Your task to perform on an android device: Search for good Italian restaurants on Maps Image 0: 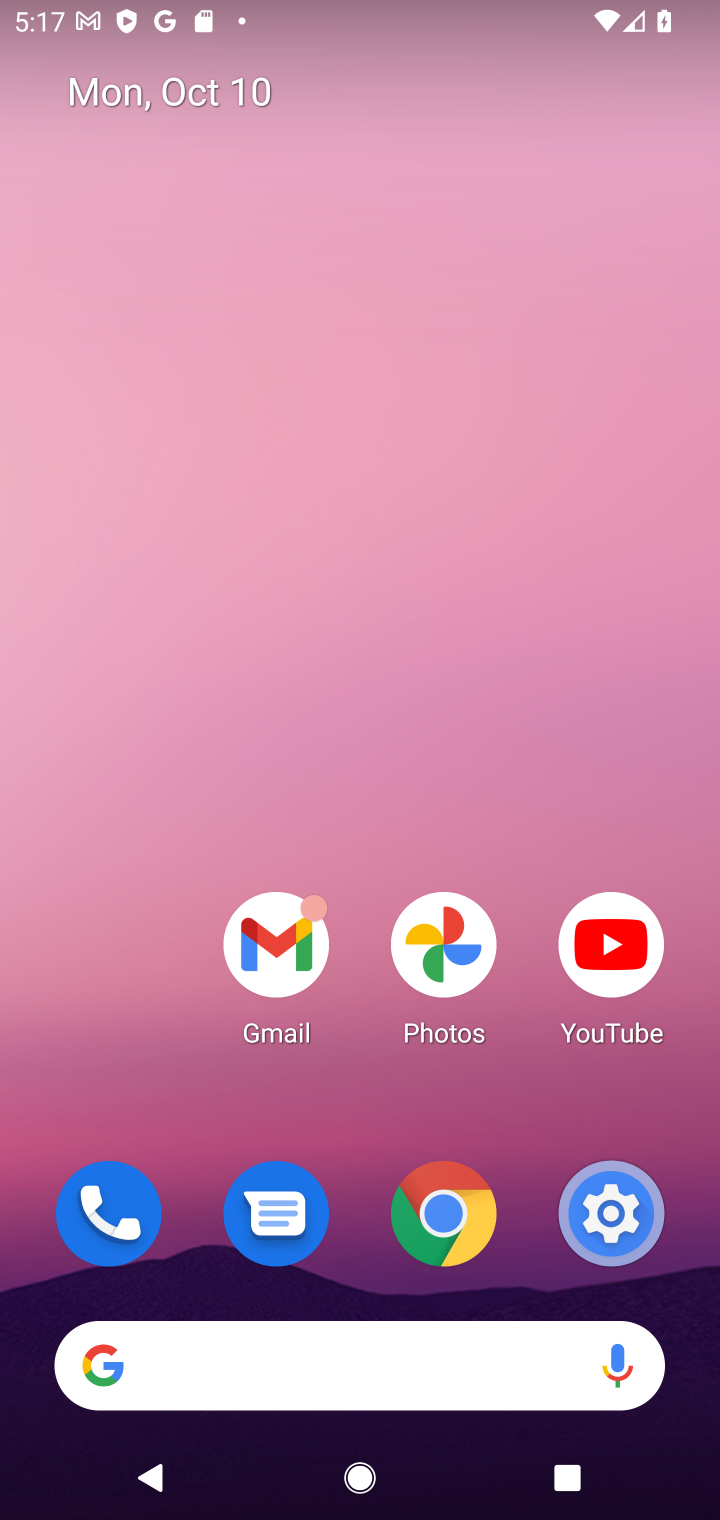
Step 0: drag from (365, 802) to (402, 287)
Your task to perform on an android device: Search for good Italian restaurants on Maps Image 1: 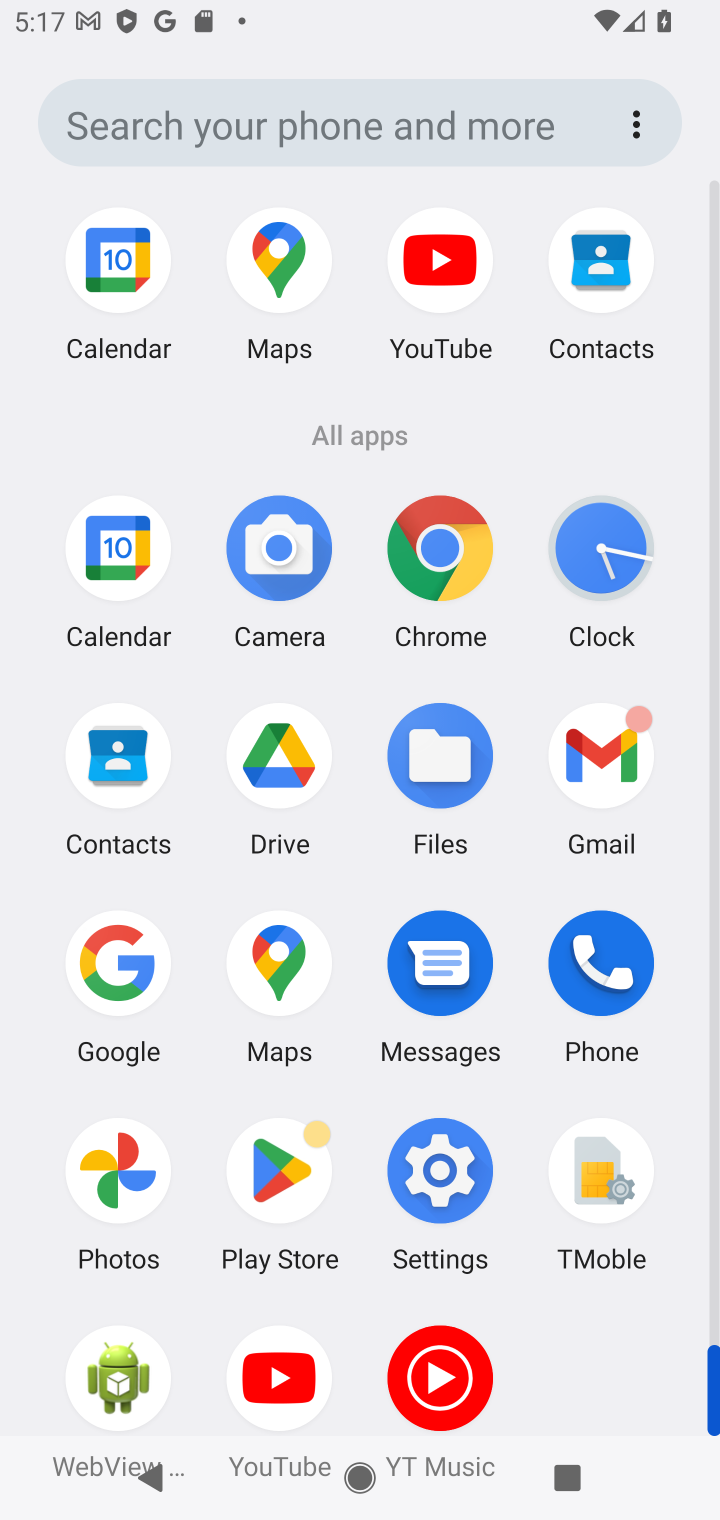
Step 1: click (306, 255)
Your task to perform on an android device: Search for good Italian restaurants on Maps Image 2: 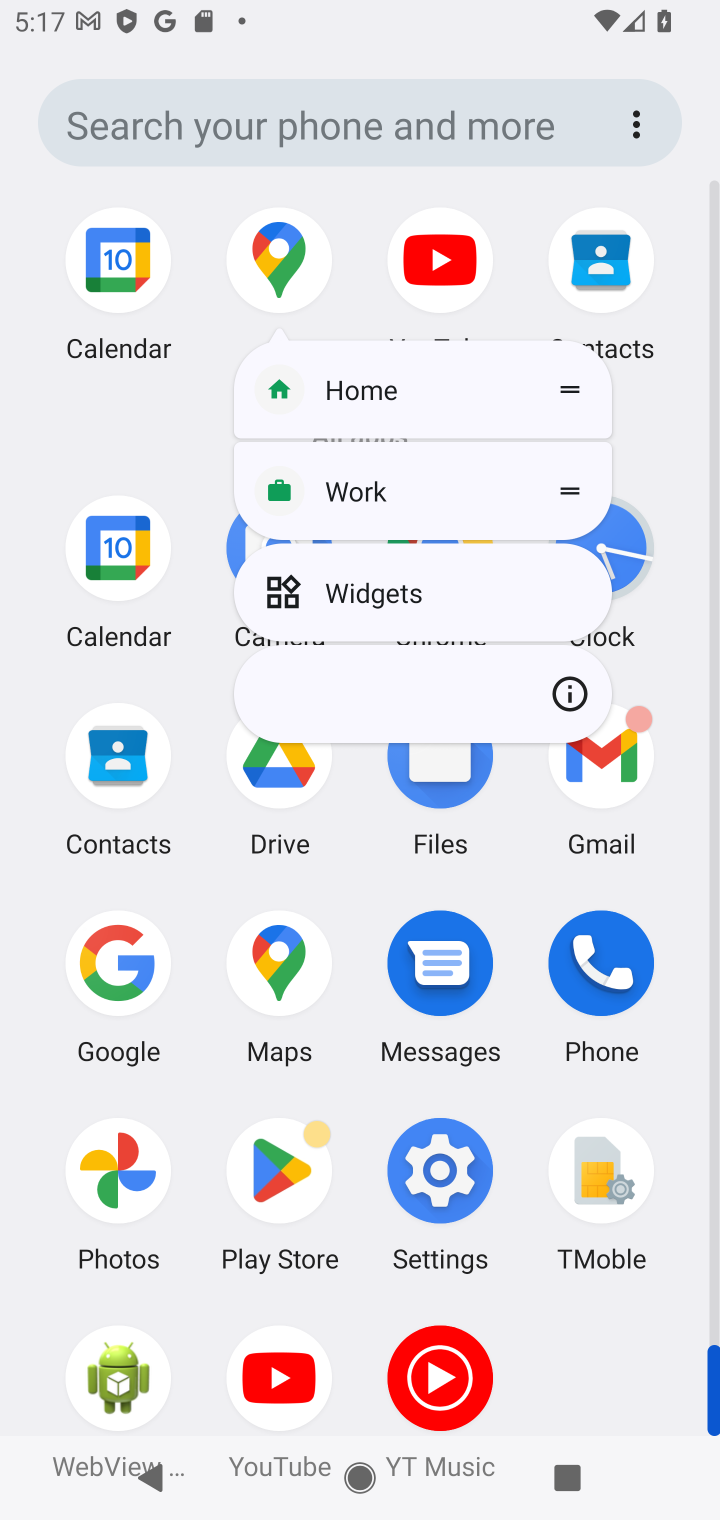
Step 2: click (264, 246)
Your task to perform on an android device: Search for good Italian restaurants on Maps Image 3: 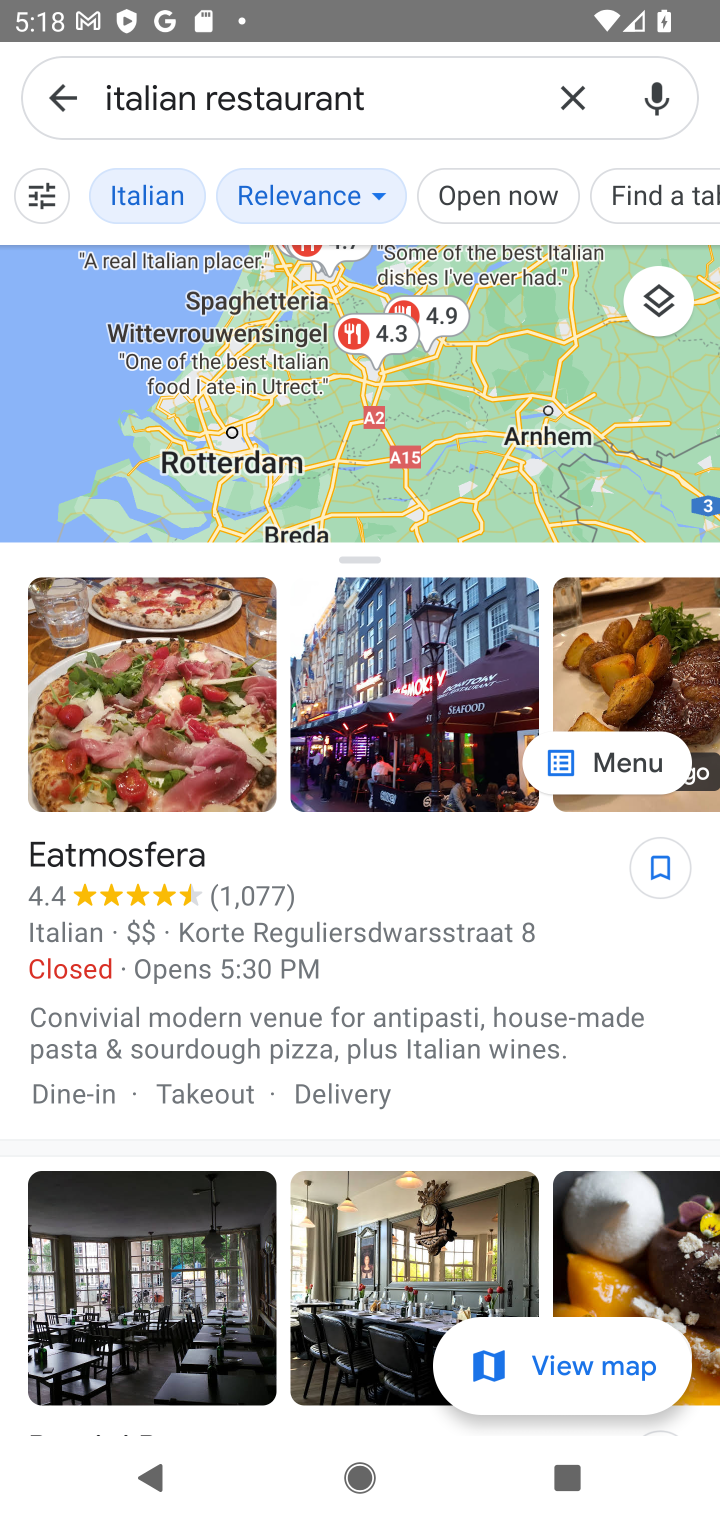
Step 3: click (566, 89)
Your task to perform on an android device: Search for good Italian restaurants on Maps Image 4: 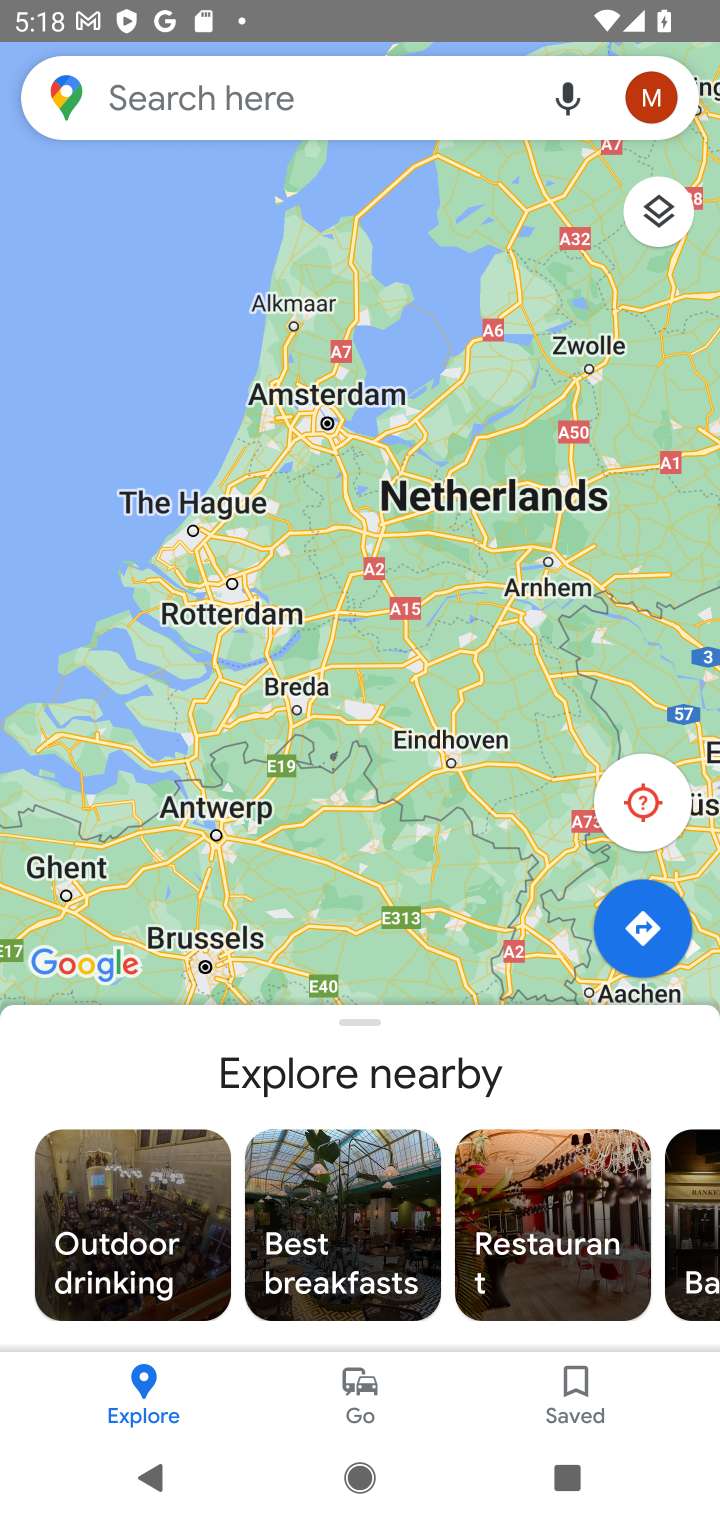
Step 4: type "Italian restaurants"
Your task to perform on an android device: Search for good Italian restaurants on Maps Image 5: 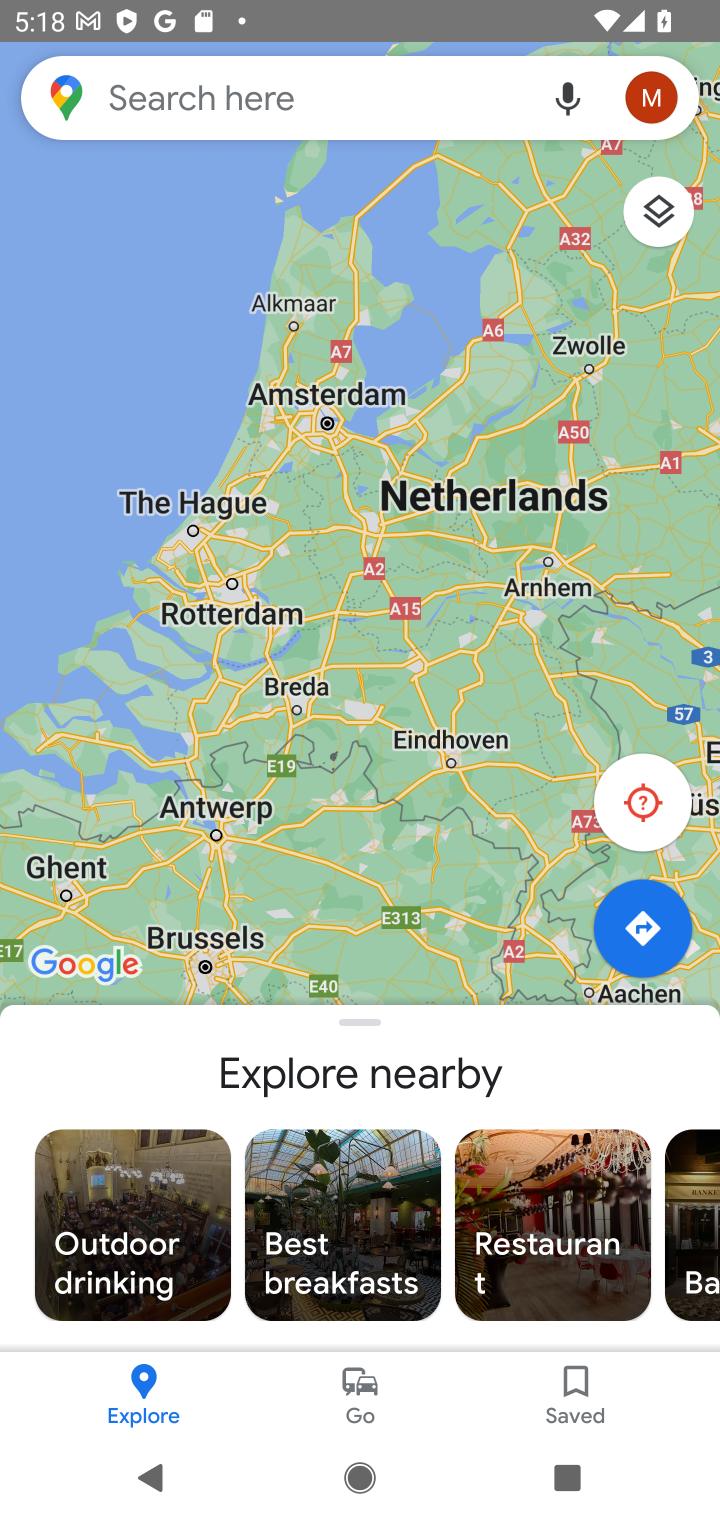
Step 5: click (298, 95)
Your task to perform on an android device: Search for good Italian restaurants on Maps Image 6: 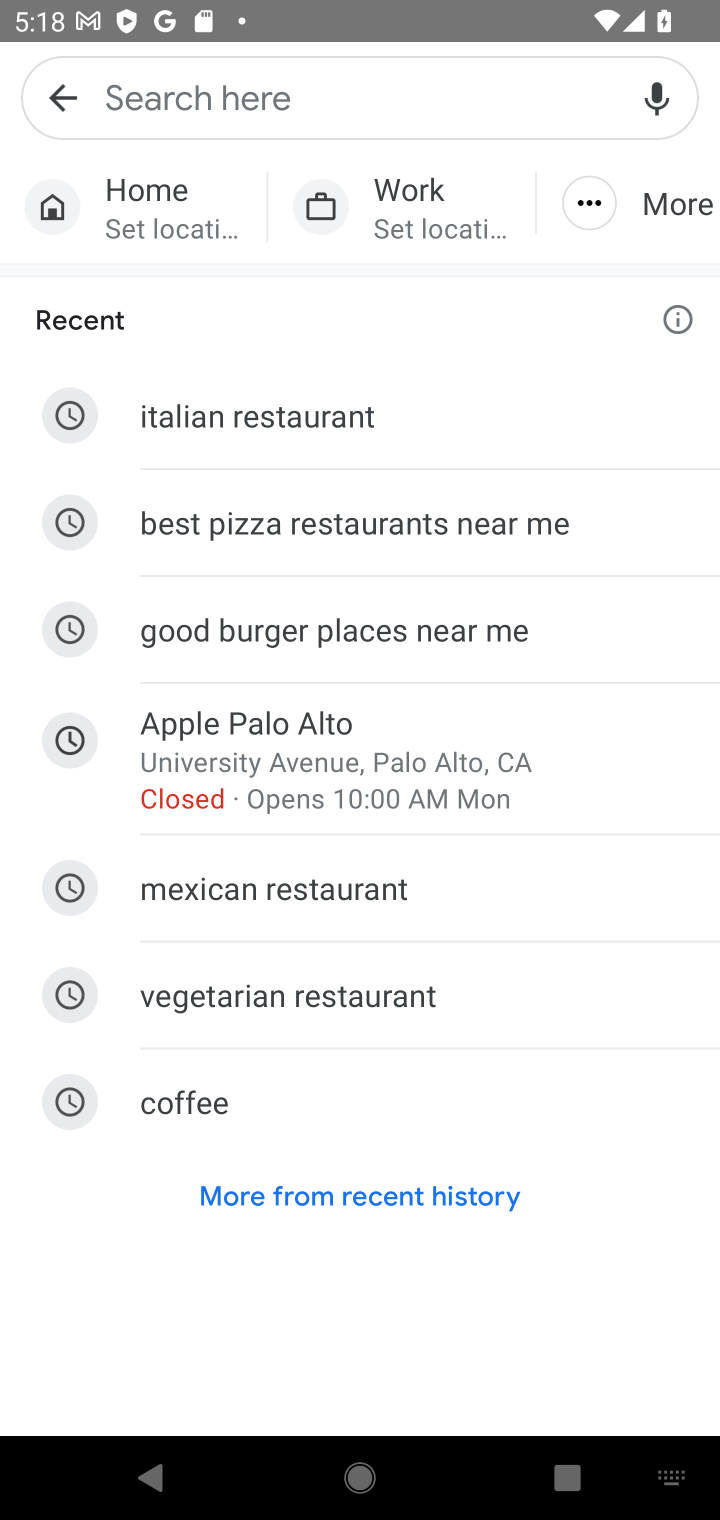
Step 6: click (320, 410)
Your task to perform on an android device: Search for good Italian restaurants on Maps Image 7: 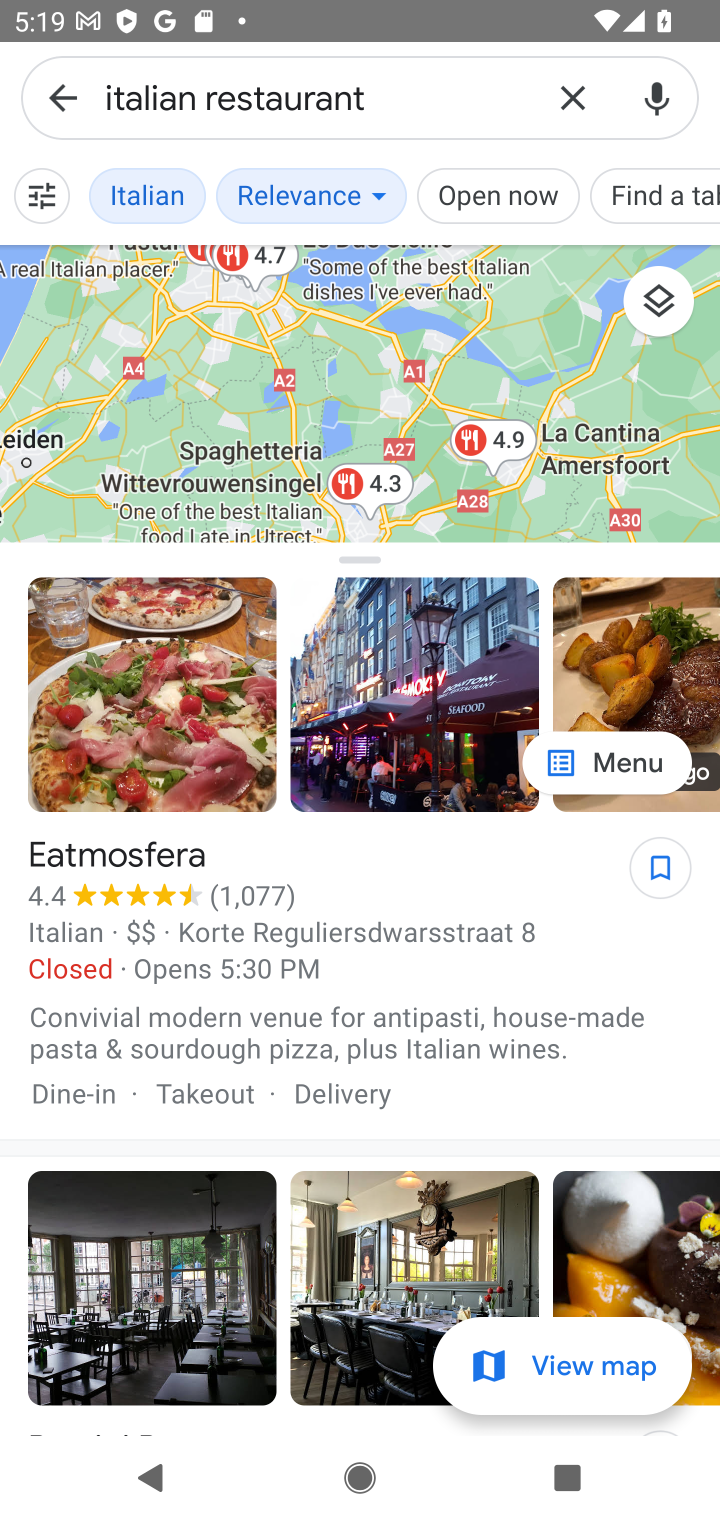
Step 7: task complete